Your task to perform on an android device: turn on sleep mode Image 0: 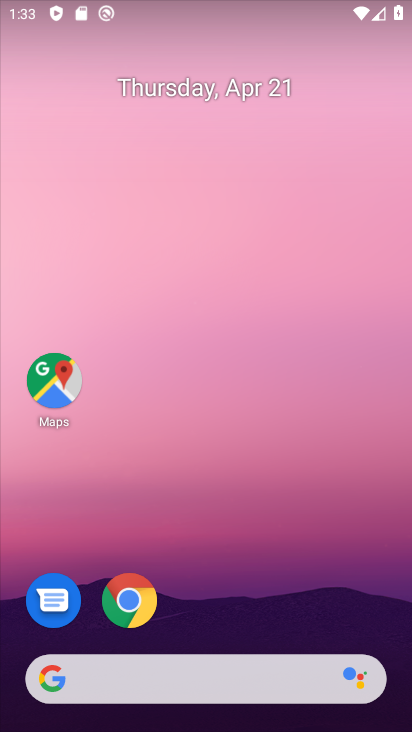
Step 0: drag from (216, 520) to (280, 91)
Your task to perform on an android device: turn on sleep mode Image 1: 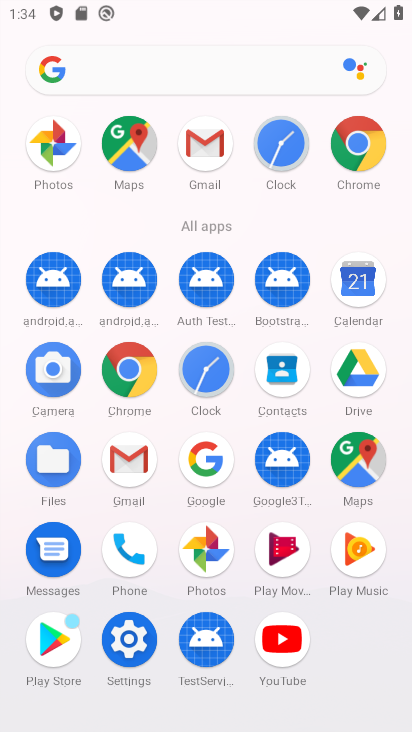
Step 1: click (131, 640)
Your task to perform on an android device: turn on sleep mode Image 2: 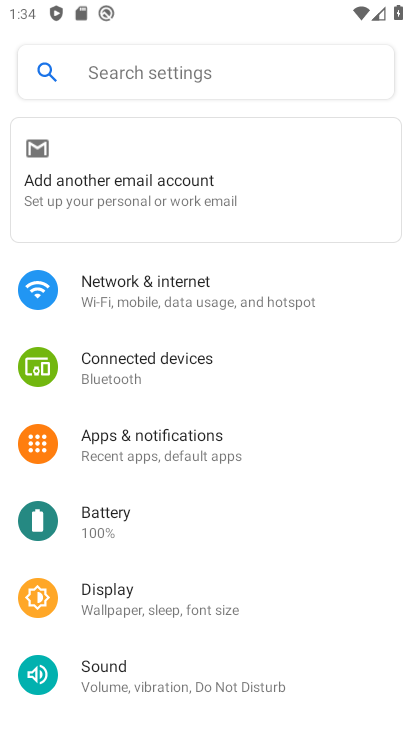
Step 2: click (122, 56)
Your task to perform on an android device: turn on sleep mode Image 3: 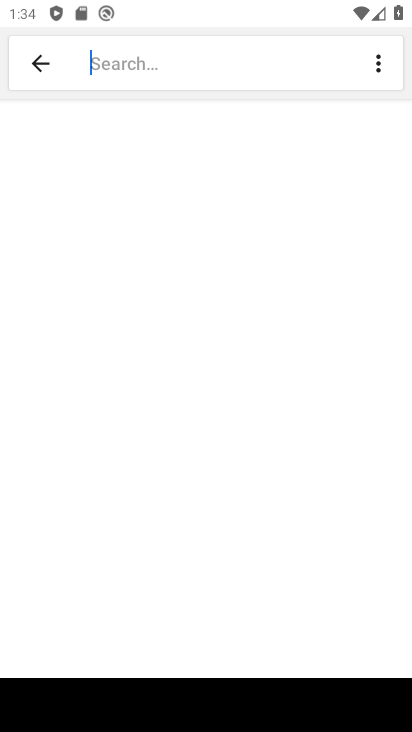
Step 3: type "sleep mode"
Your task to perform on an android device: turn on sleep mode Image 4: 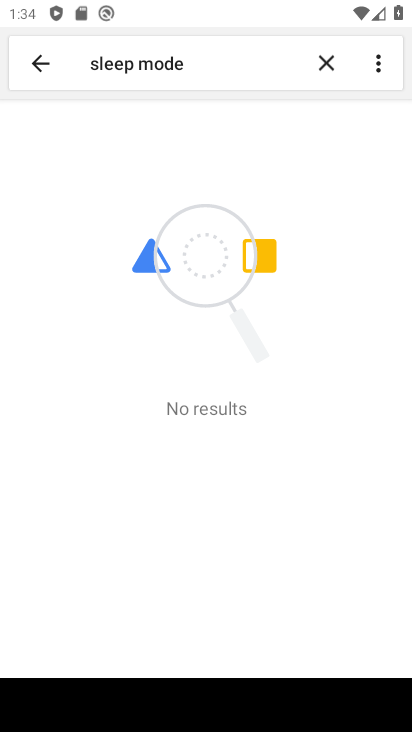
Step 4: task complete